Your task to perform on an android device: see sites visited before in the chrome app Image 0: 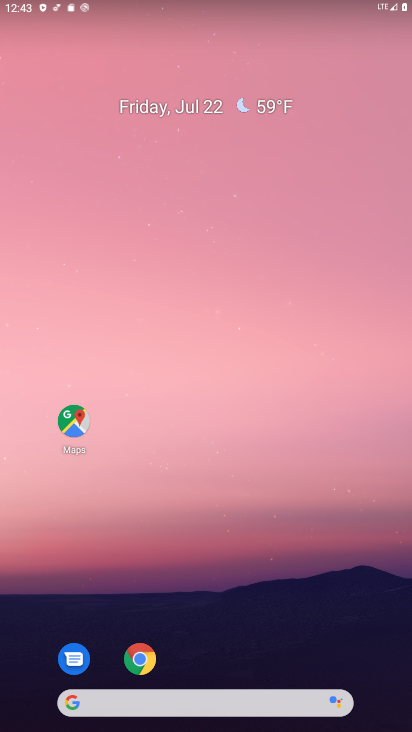
Step 0: click (148, 649)
Your task to perform on an android device: see sites visited before in the chrome app Image 1: 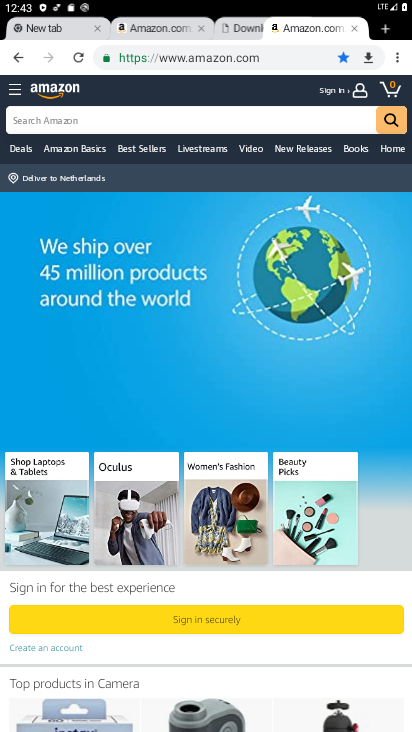
Step 1: click (402, 55)
Your task to perform on an android device: see sites visited before in the chrome app Image 2: 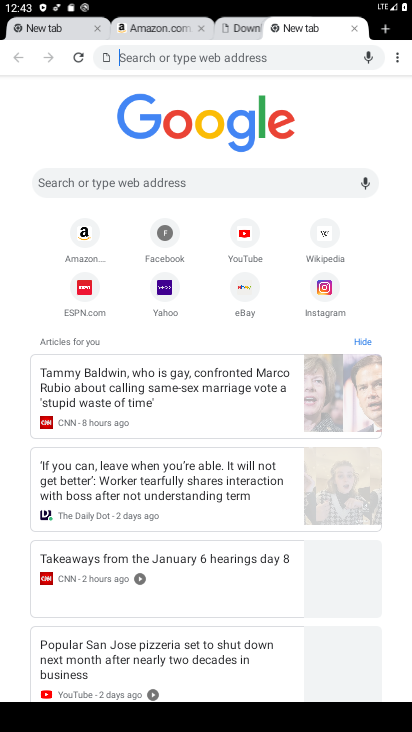
Step 2: click (400, 62)
Your task to perform on an android device: see sites visited before in the chrome app Image 3: 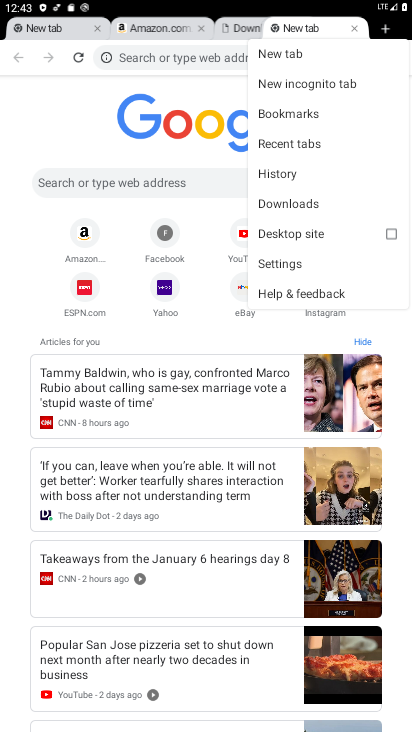
Step 3: click (334, 149)
Your task to perform on an android device: see sites visited before in the chrome app Image 4: 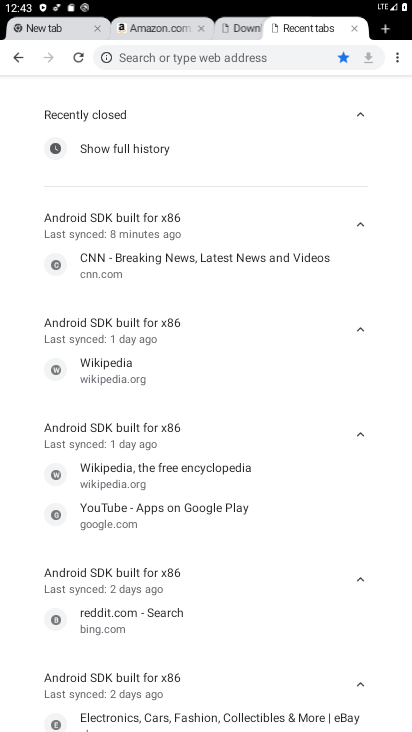
Step 4: task complete